Your task to perform on an android device: Open location settings Image 0: 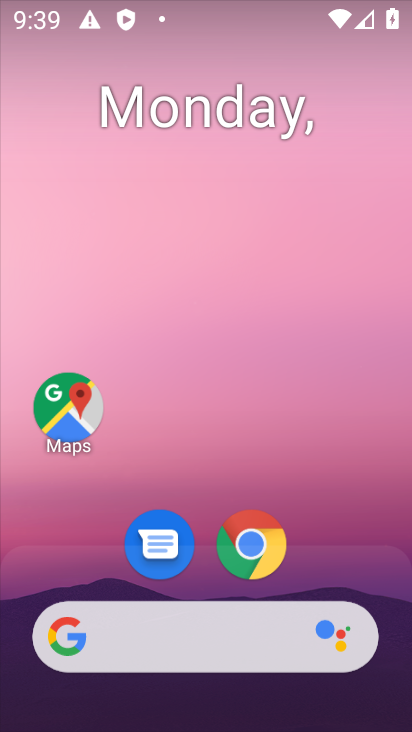
Step 0: drag from (230, 646) to (92, 7)
Your task to perform on an android device: Open location settings Image 1: 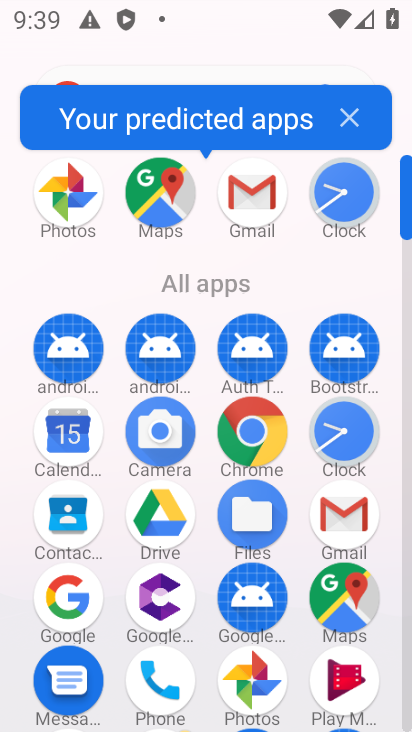
Step 1: drag from (191, 576) to (216, 128)
Your task to perform on an android device: Open location settings Image 2: 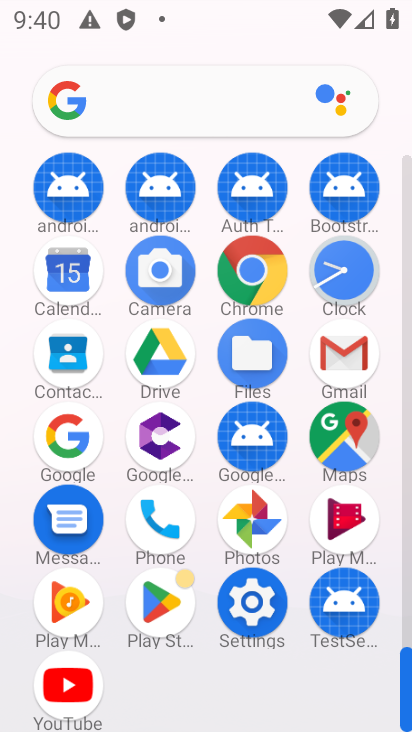
Step 2: click (234, 598)
Your task to perform on an android device: Open location settings Image 3: 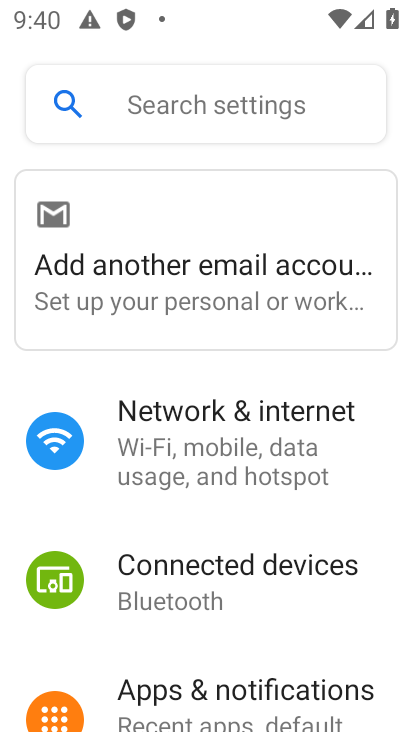
Step 3: drag from (232, 640) to (235, 127)
Your task to perform on an android device: Open location settings Image 4: 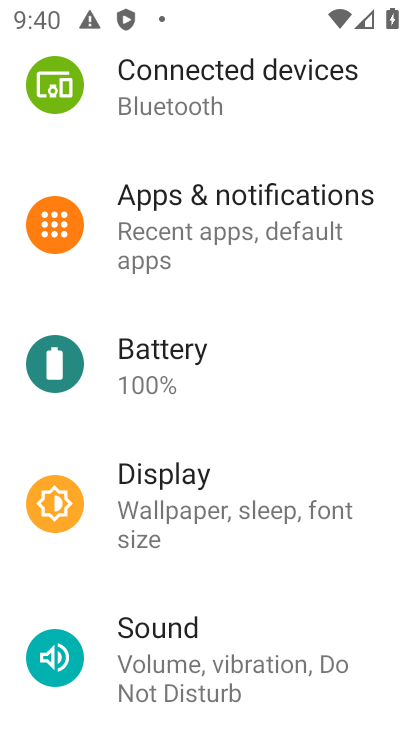
Step 4: drag from (209, 646) to (230, 133)
Your task to perform on an android device: Open location settings Image 5: 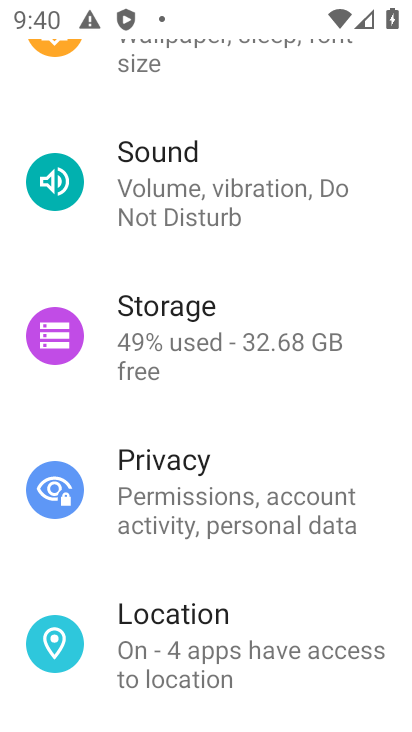
Step 5: click (187, 607)
Your task to perform on an android device: Open location settings Image 6: 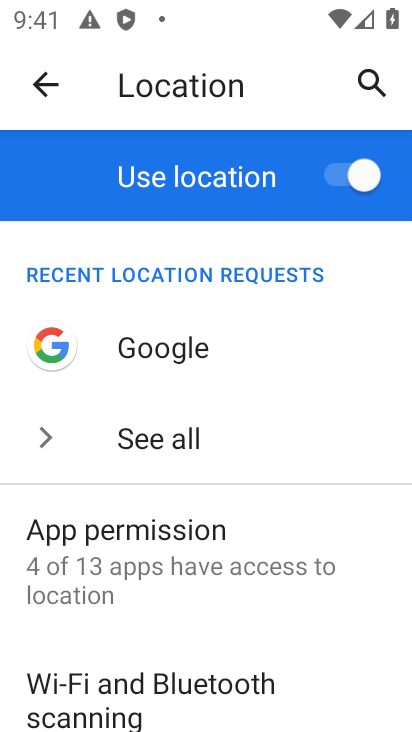
Step 6: task complete